Your task to perform on an android device: uninstall "Gmail" Image 0: 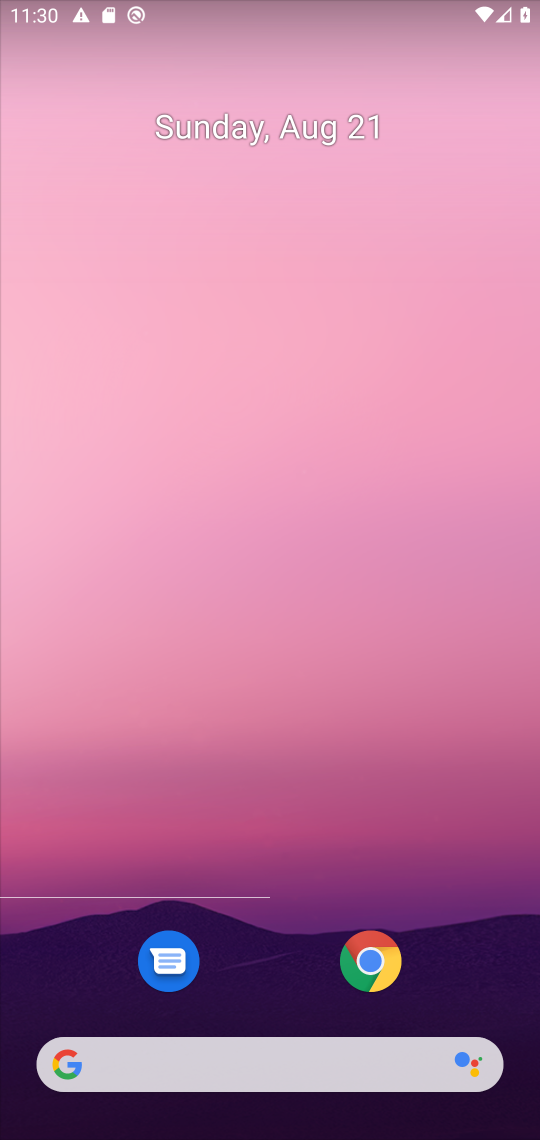
Step 0: press home button
Your task to perform on an android device: uninstall "Gmail" Image 1: 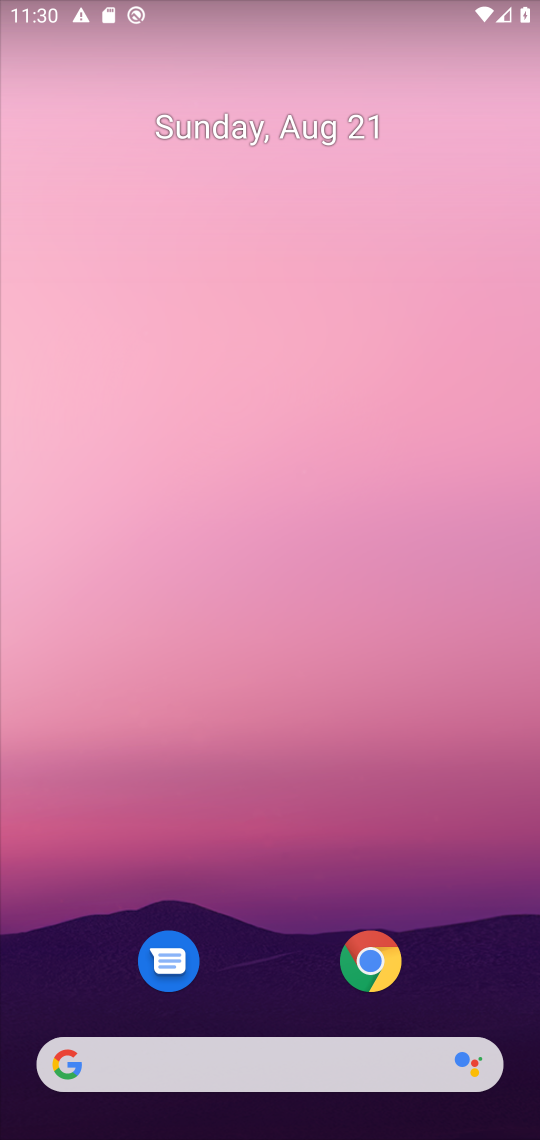
Step 1: drag from (473, 929) to (449, 73)
Your task to perform on an android device: uninstall "Gmail" Image 2: 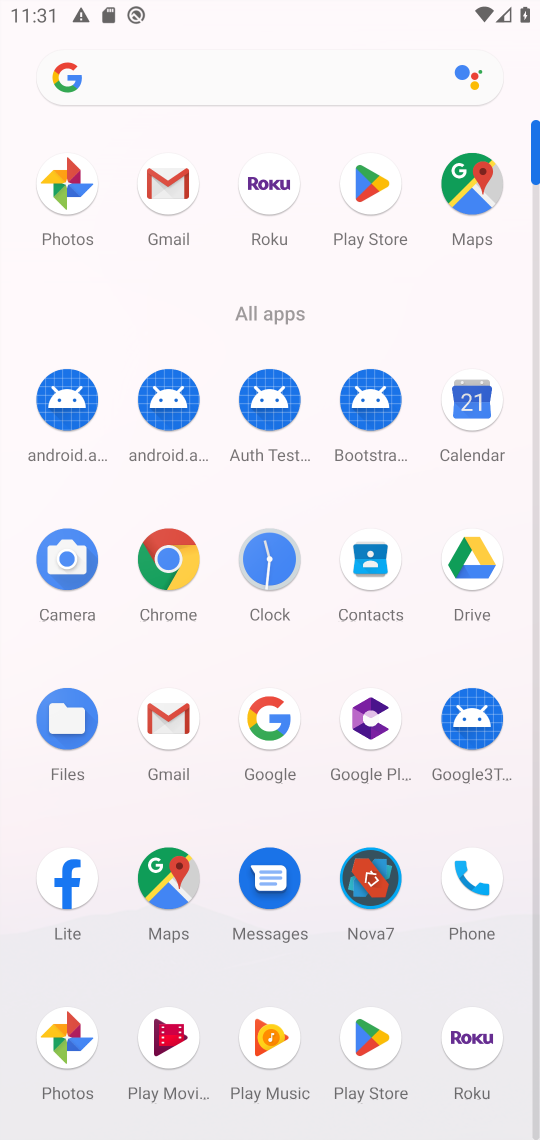
Step 2: click (370, 195)
Your task to perform on an android device: uninstall "Gmail" Image 3: 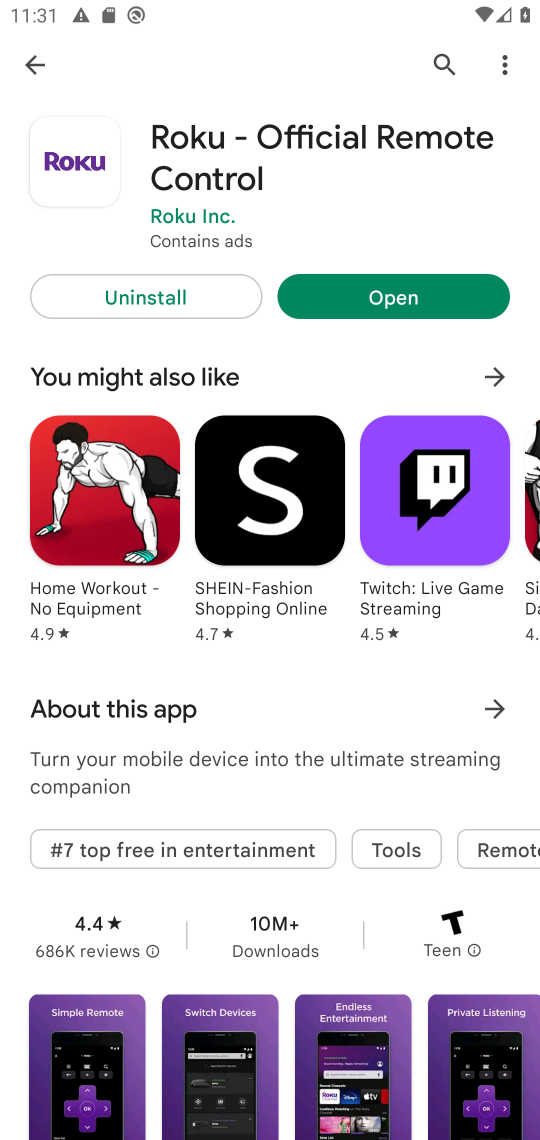
Step 3: press back button
Your task to perform on an android device: uninstall "Gmail" Image 4: 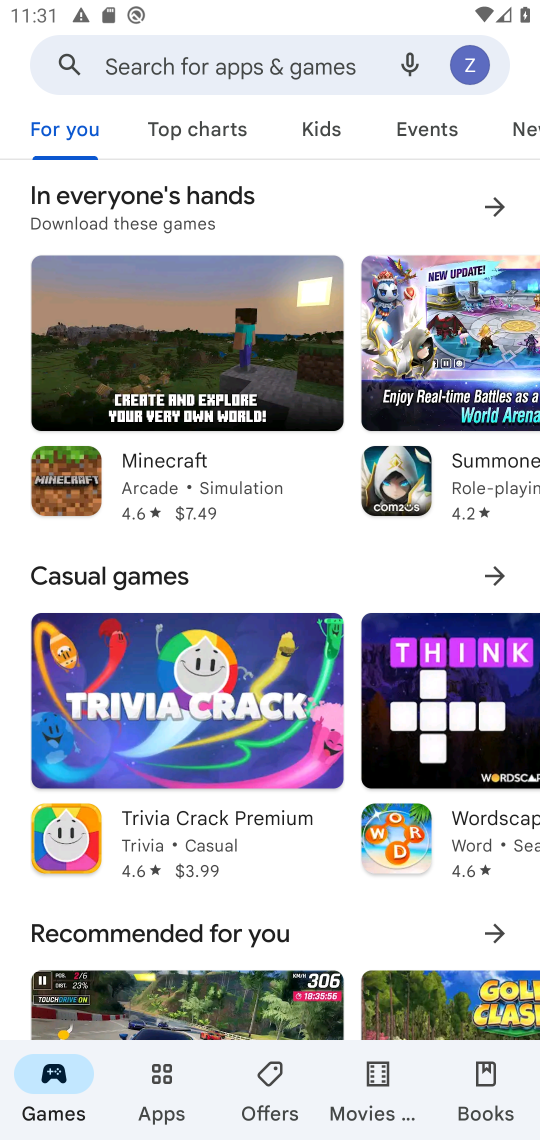
Step 4: click (311, 72)
Your task to perform on an android device: uninstall "Gmail" Image 5: 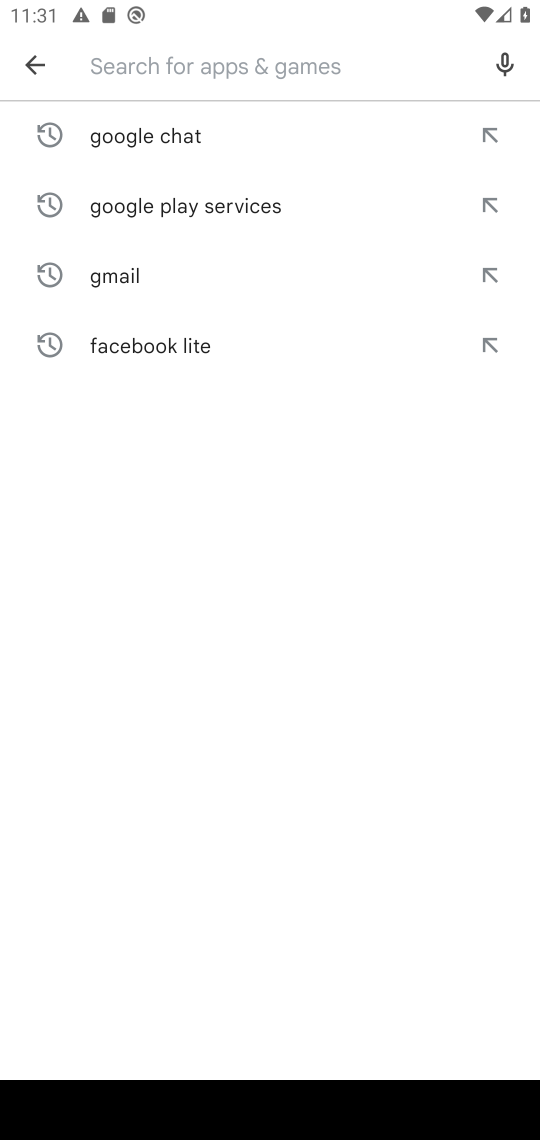
Step 5: type "gmail"
Your task to perform on an android device: uninstall "Gmail" Image 6: 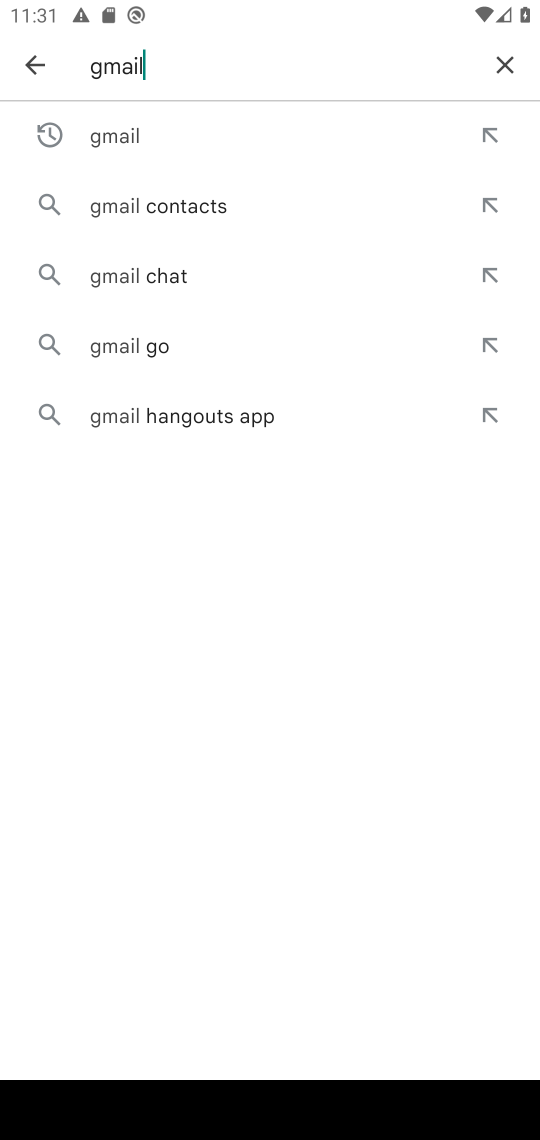
Step 6: click (158, 140)
Your task to perform on an android device: uninstall "Gmail" Image 7: 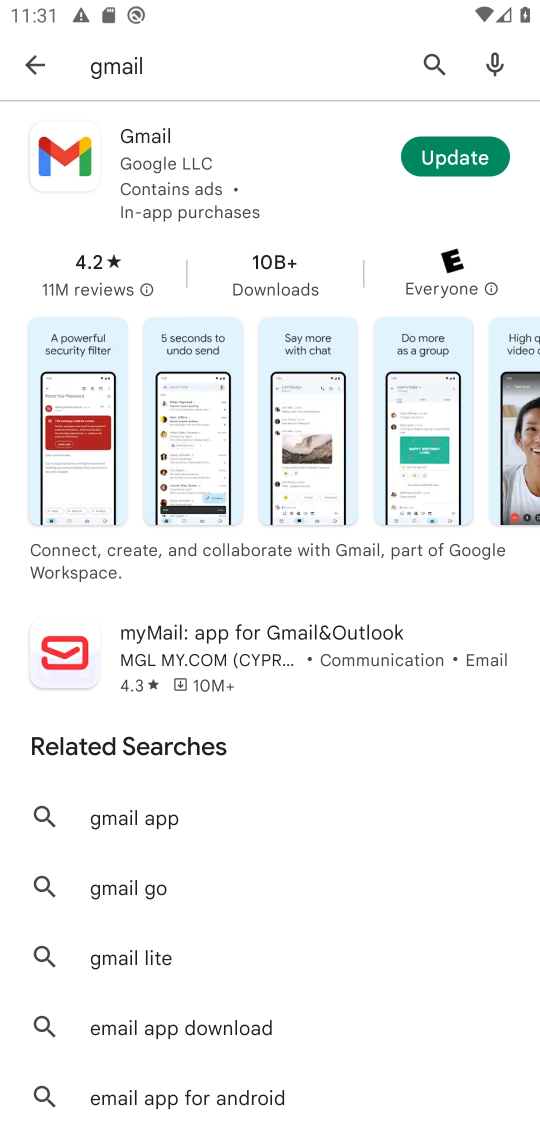
Step 7: task complete